Your task to perform on an android device: Open location settings Image 0: 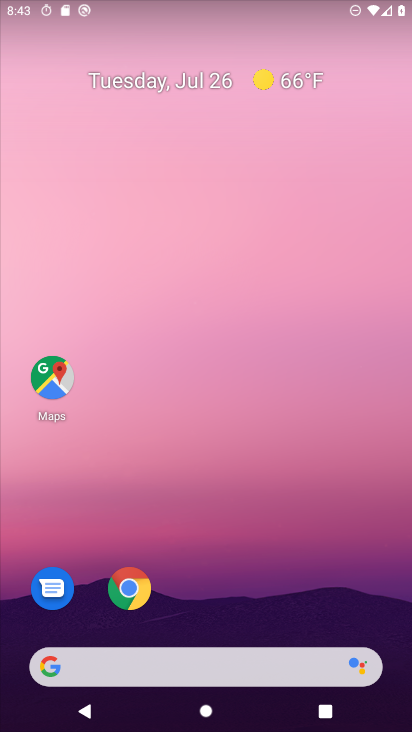
Step 0: drag from (244, 723) to (245, 52)
Your task to perform on an android device: Open location settings Image 1: 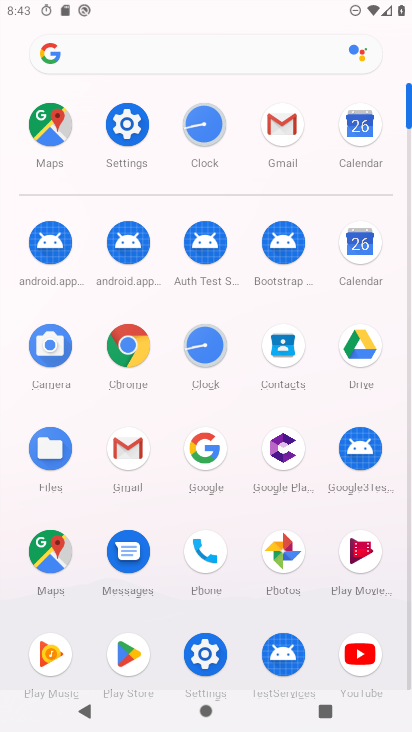
Step 1: click (127, 119)
Your task to perform on an android device: Open location settings Image 2: 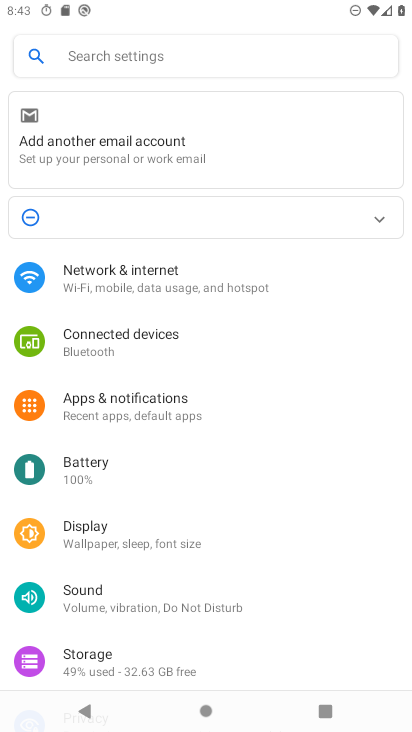
Step 2: drag from (123, 632) to (85, 271)
Your task to perform on an android device: Open location settings Image 3: 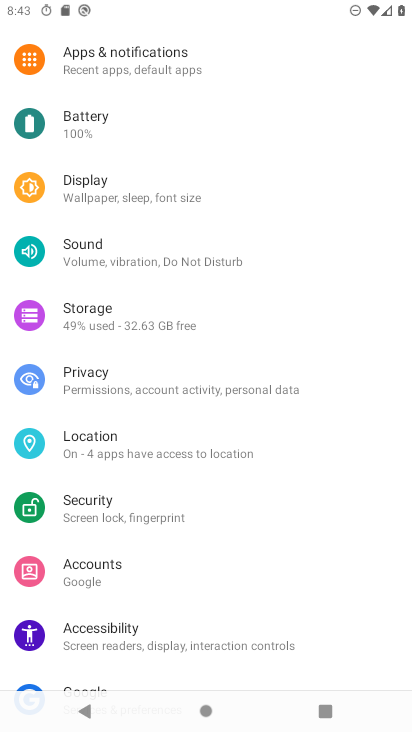
Step 3: click (82, 435)
Your task to perform on an android device: Open location settings Image 4: 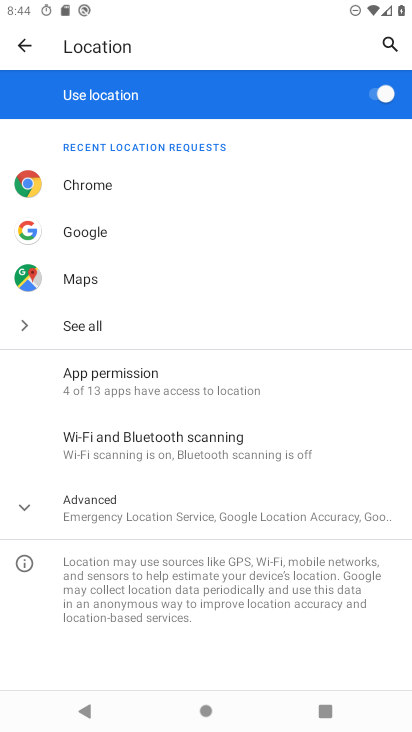
Step 4: task complete